Your task to perform on an android device: Open accessibility settings Image 0: 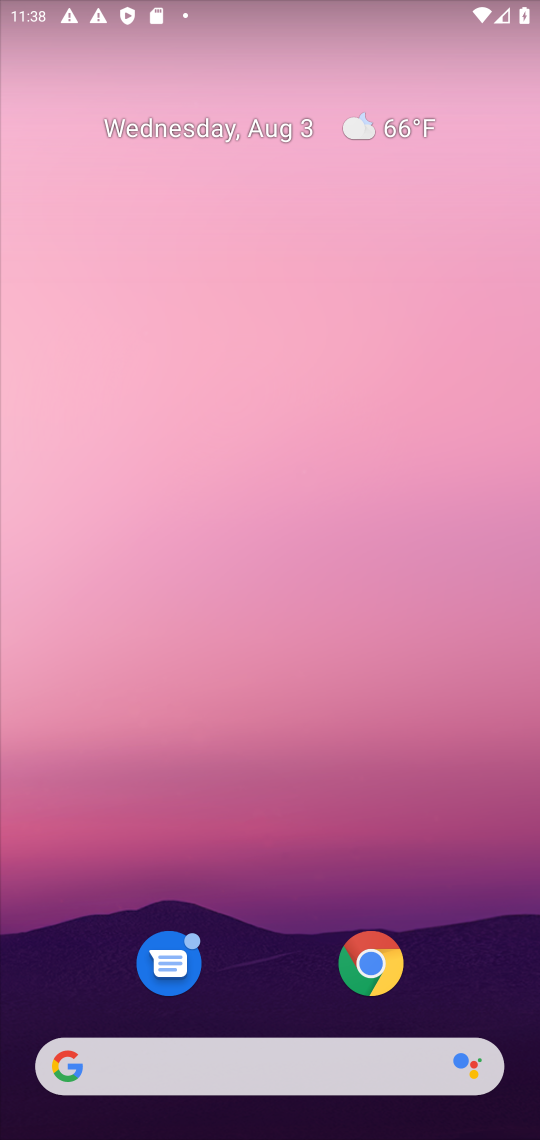
Step 0: drag from (267, 956) to (257, 198)
Your task to perform on an android device: Open accessibility settings Image 1: 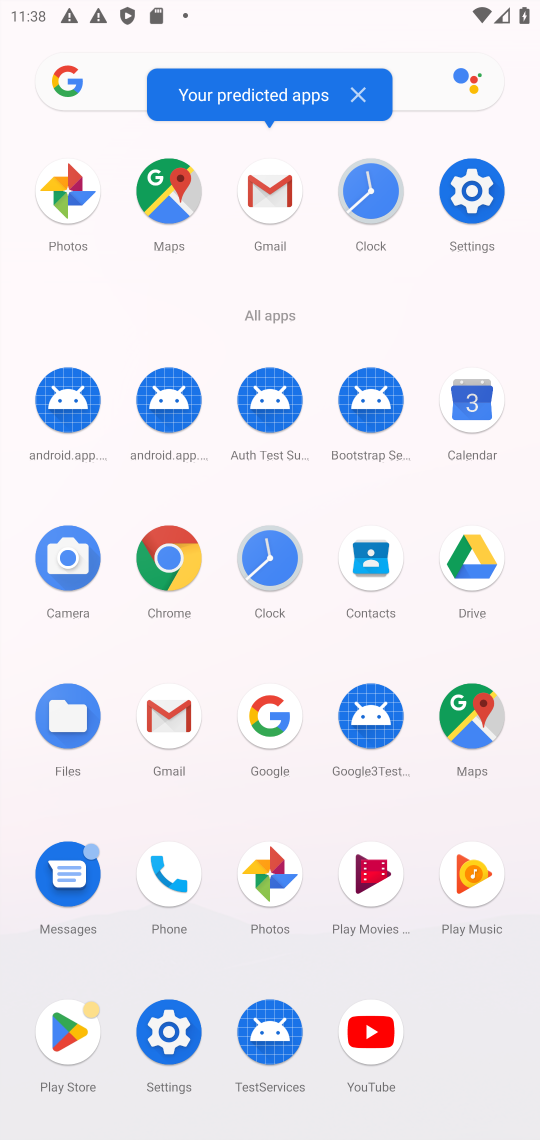
Step 1: click (481, 198)
Your task to perform on an android device: Open accessibility settings Image 2: 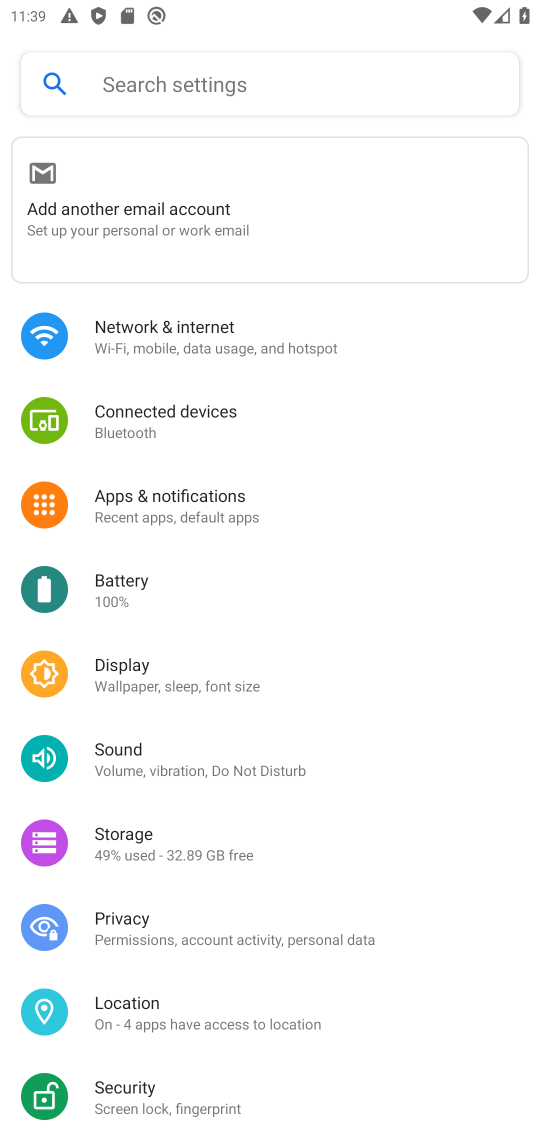
Step 2: drag from (297, 790) to (297, 259)
Your task to perform on an android device: Open accessibility settings Image 3: 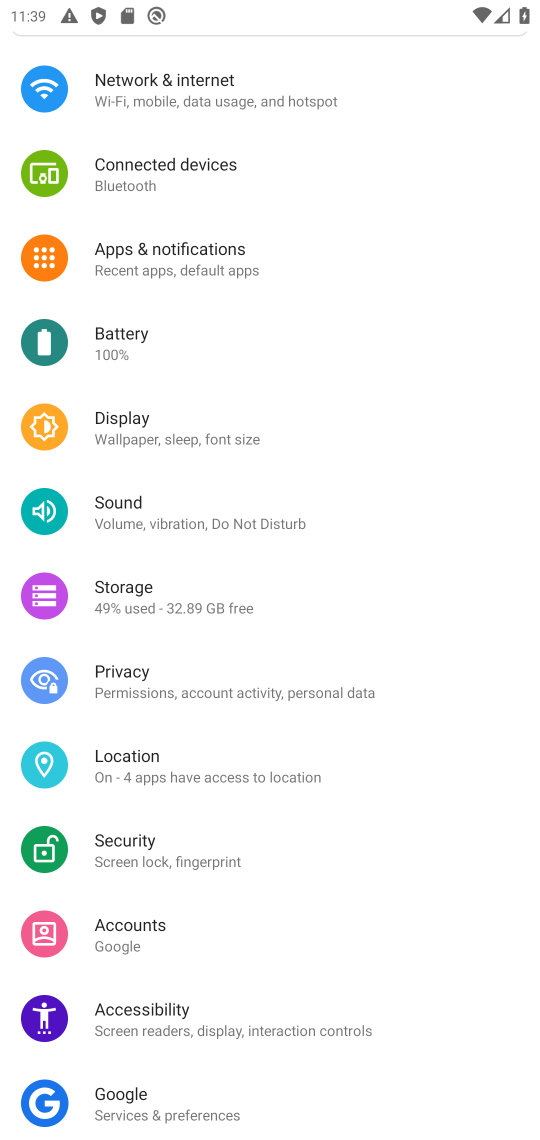
Step 3: click (179, 1017)
Your task to perform on an android device: Open accessibility settings Image 4: 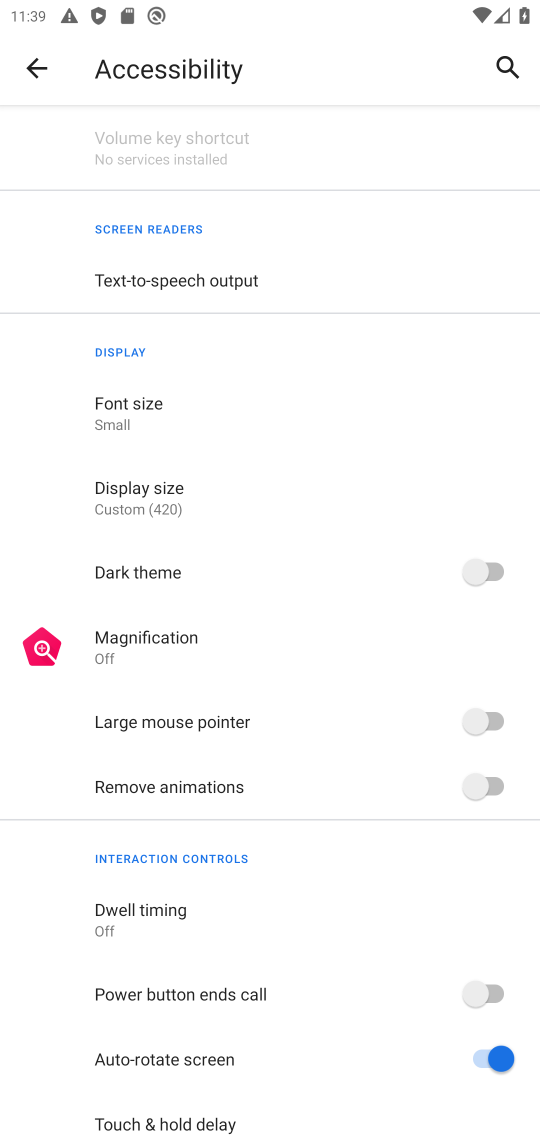
Step 4: task complete